Your task to perform on an android device: Search for Italian restaurants on Maps Image 0: 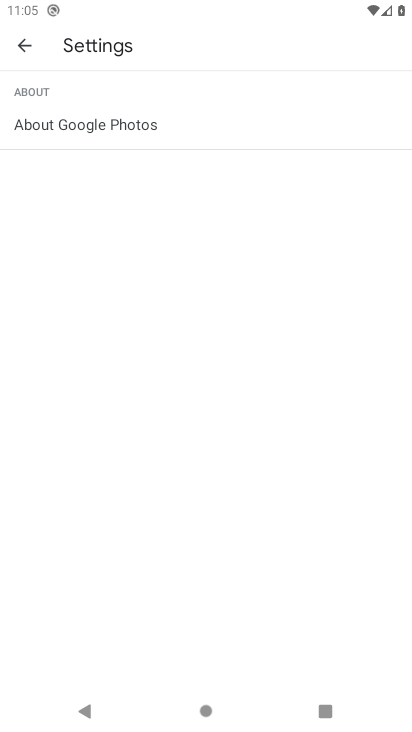
Step 0: press home button
Your task to perform on an android device: Search for Italian restaurants on Maps Image 1: 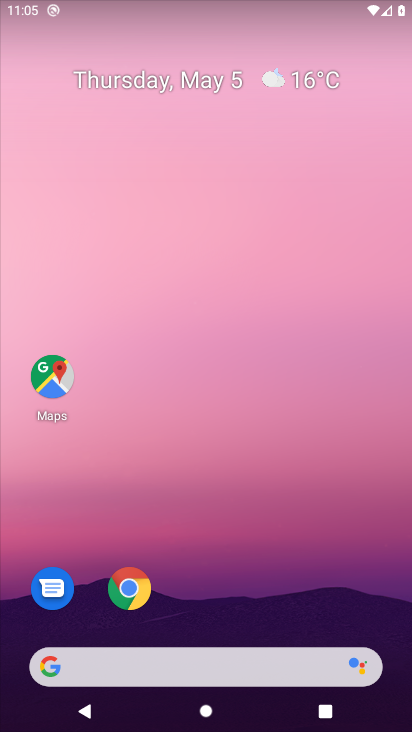
Step 1: drag from (210, 628) to (234, 65)
Your task to perform on an android device: Search for Italian restaurants on Maps Image 2: 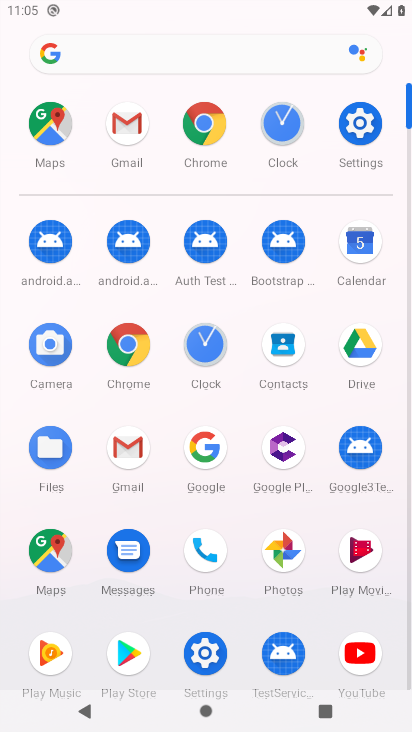
Step 2: click (39, 139)
Your task to perform on an android device: Search for Italian restaurants on Maps Image 3: 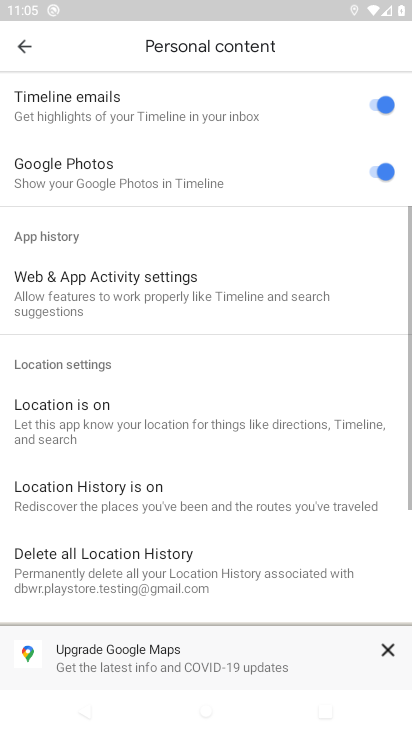
Step 3: click (21, 41)
Your task to perform on an android device: Search for Italian restaurants on Maps Image 4: 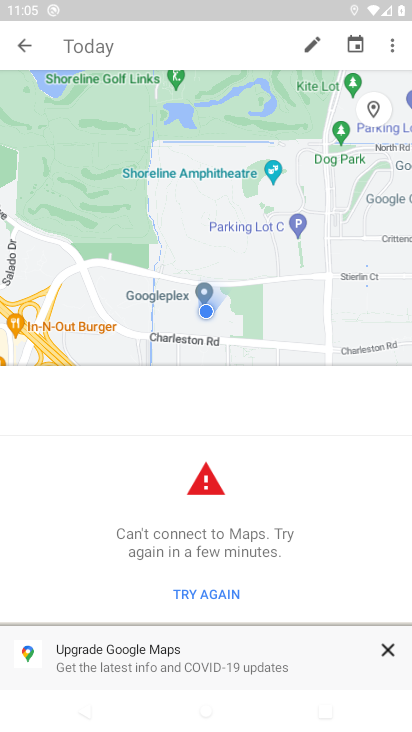
Step 4: click (21, 41)
Your task to perform on an android device: Search for Italian restaurants on Maps Image 5: 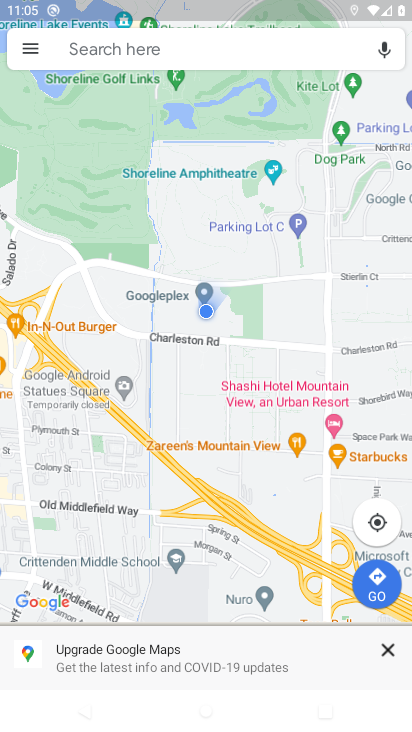
Step 5: click (98, 44)
Your task to perform on an android device: Search for Italian restaurants on Maps Image 6: 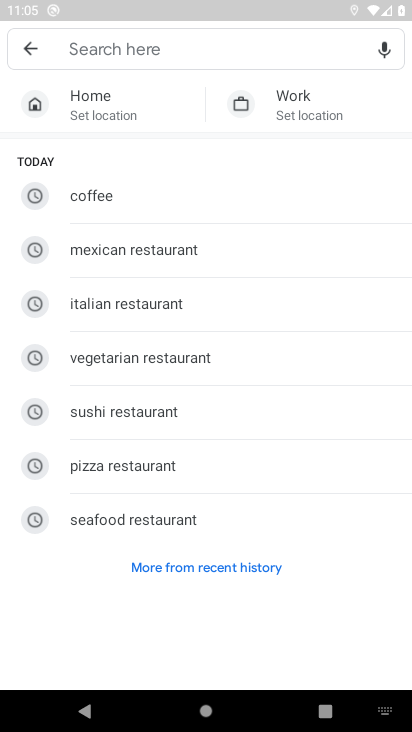
Step 6: click (225, 312)
Your task to perform on an android device: Search for Italian restaurants on Maps Image 7: 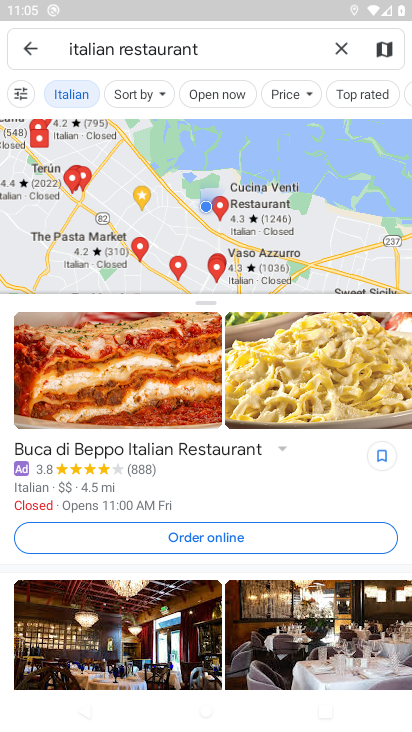
Step 7: task complete